Your task to perform on an android device: Go to Amazon Image 0: 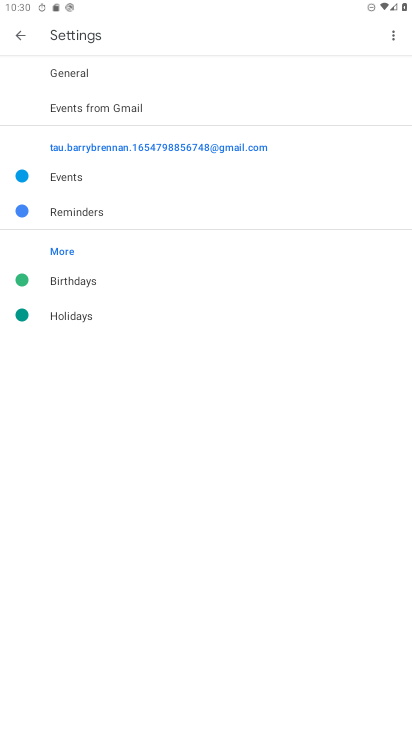
Step 0: press home button
Your task to perform on an android device: Go to Amazon Image 1: 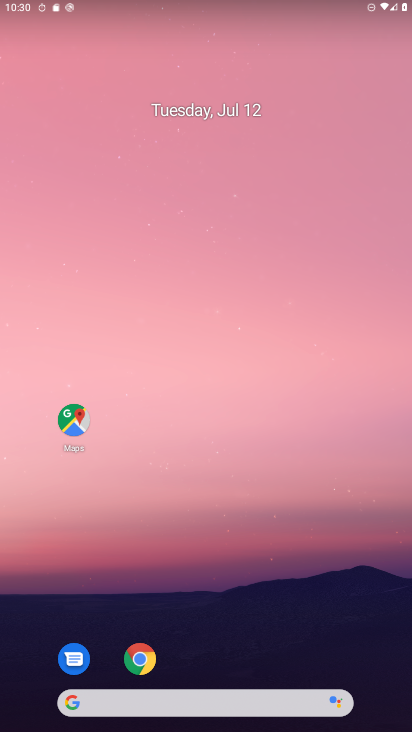
Step 1: drag from (223, 718) to (211, 184)
Your task to perform on an android device: Go to Amazon Image 2: 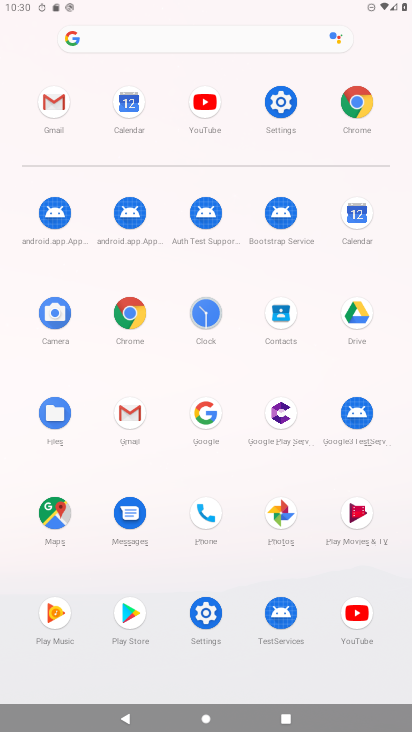
Step 2: click (130, 310)
Your task to perform on an android device: Go to Amazon Image 3: 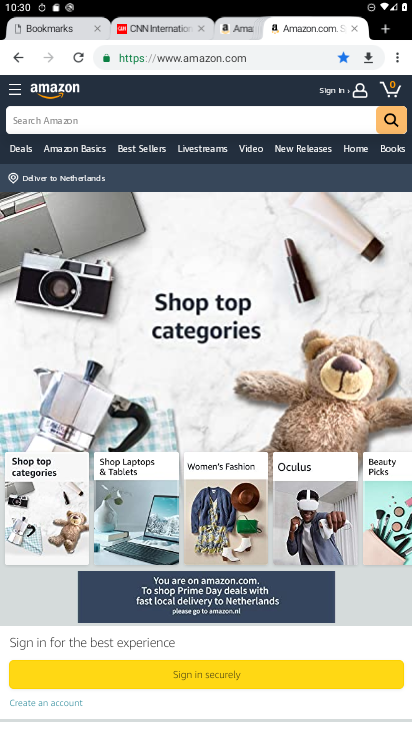
Step 3: task complete